Your task to perform on an android device: turn on priority inbox in the gmail app Image 0: 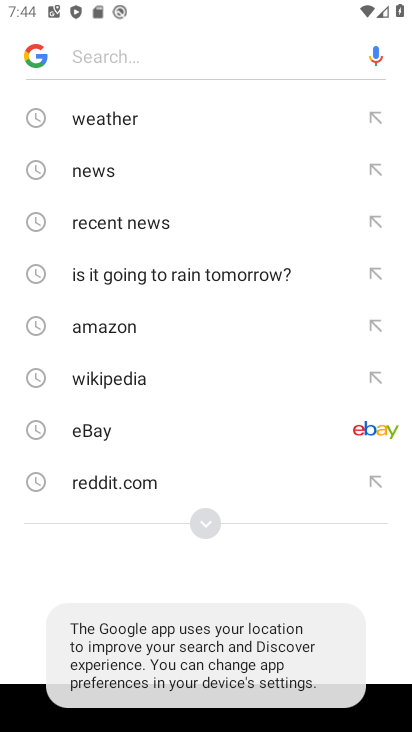
Step 0: press home button
Your task to perform on an android device: turn on priority inbox in the gmail app Image 1: 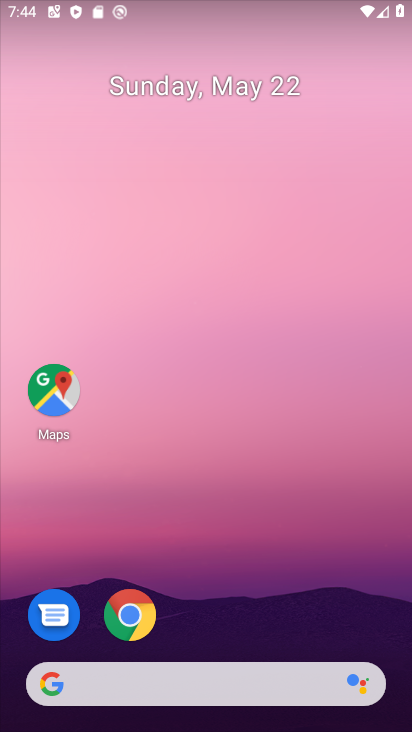
Step 1: drag from (219, 647) to (86, 0)
Your task to perform on an android device: turn on priority inbox in the gmail app Image 2: 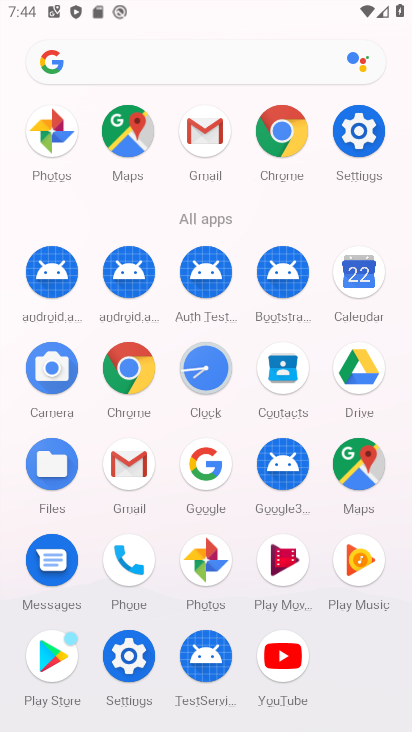
Step 2: click (114, 455)
Your task to perform on an android device: turn on priority inbox in the gmail app Image 3: 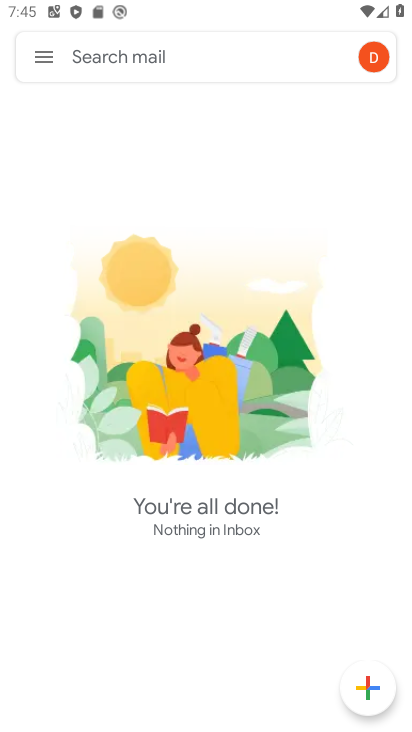
Step 3: click (42, 61)
Your task to perform on an android device: turn on priority inbox in the gmail app Image 4: 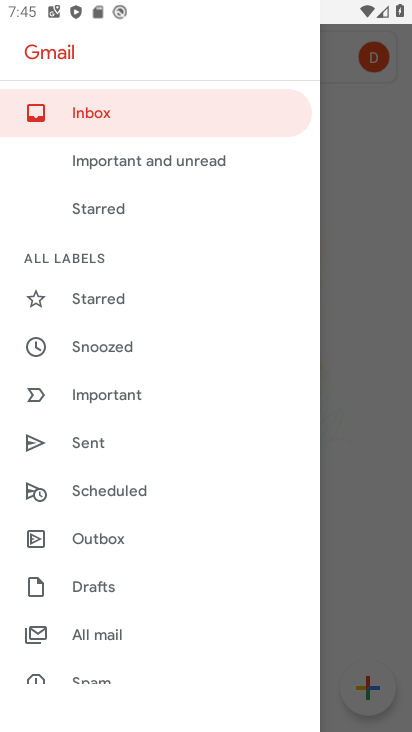
Step 4: drag from (147, 634) to (9, 128)
Your task to perform on an android device: turn on priority inbox in the gmail app Image 5: 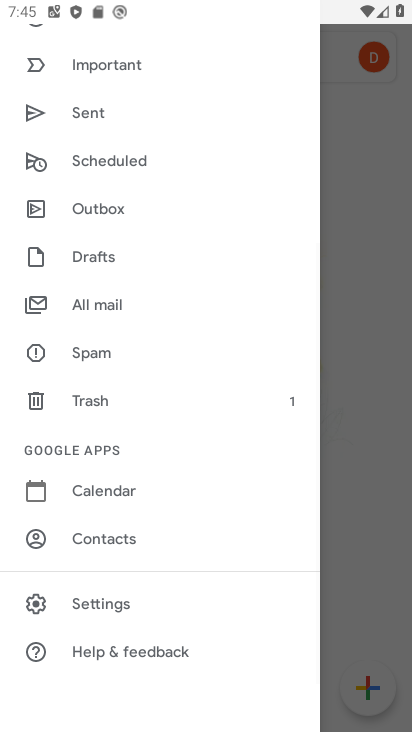
Step 5: click (97, 593)
Your task to perform on an android device: turn on priority inbox in the gmail app Image 6: 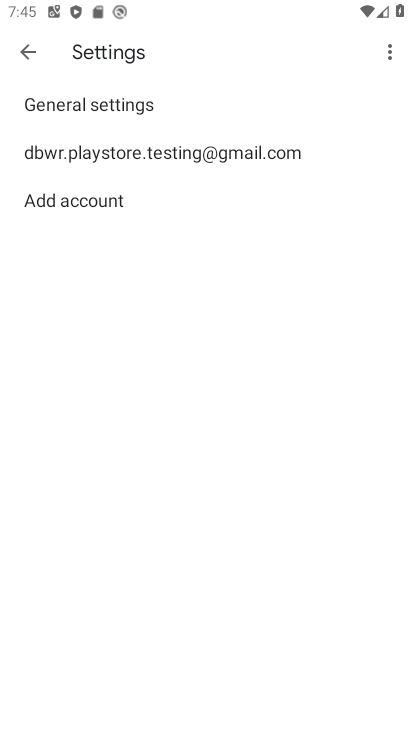
Step 6: click (104, 145)
Your task to perform on an android device: turn on priority inbox in the gmail app Image 7: 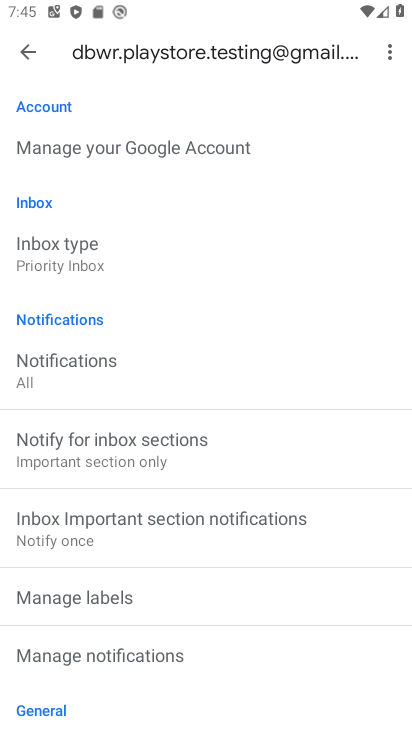
Step 7: task complete